Your task to perform on an android device: Open settings Image 0: 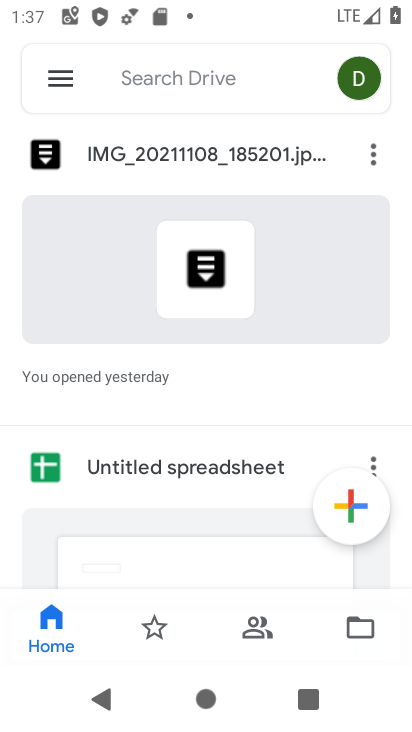
Step 0: press home button
Your task to perform on an android device: Open settings Image 1: 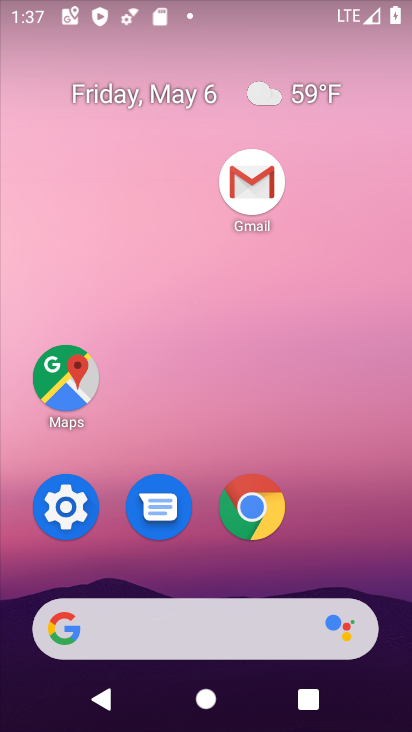
Step 1: click (61, 510)
Your task to perform on an android device: Open settings Image 2: 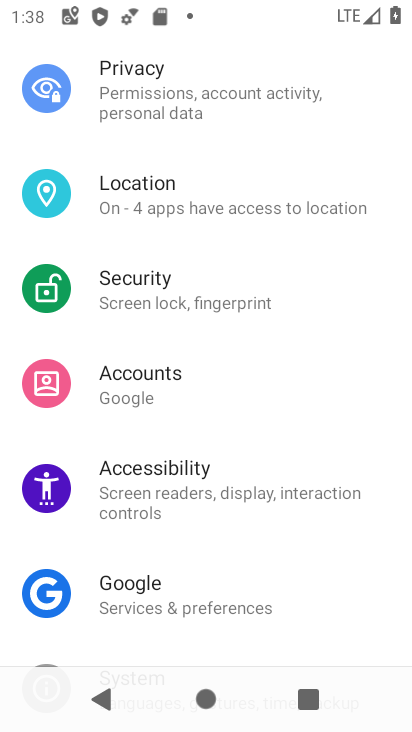
Step 2: task complete